Your task to perform on an android device: toggle improve location accuracy Image 0: 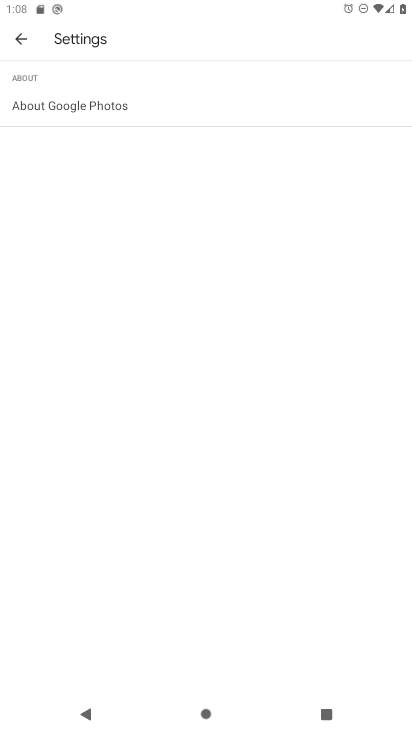
Step 0: press home button
Your task to perform on an android device: toggle improve location accuracy Image 1: 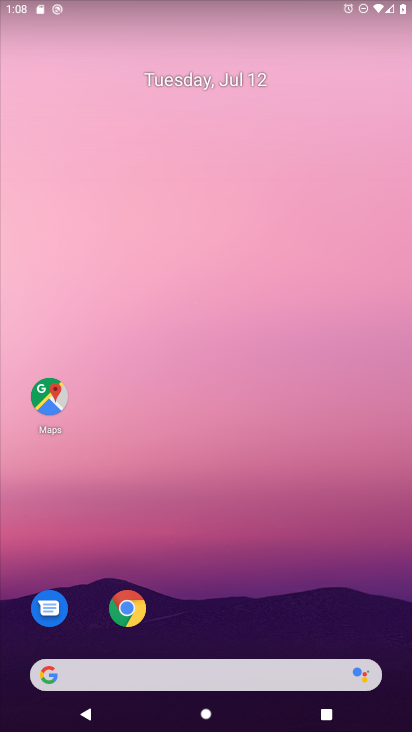
Step 1: drag from (150, 652) to (127, 324)
Your task to perform on an android device: toggle improve location accuracy Image 2: 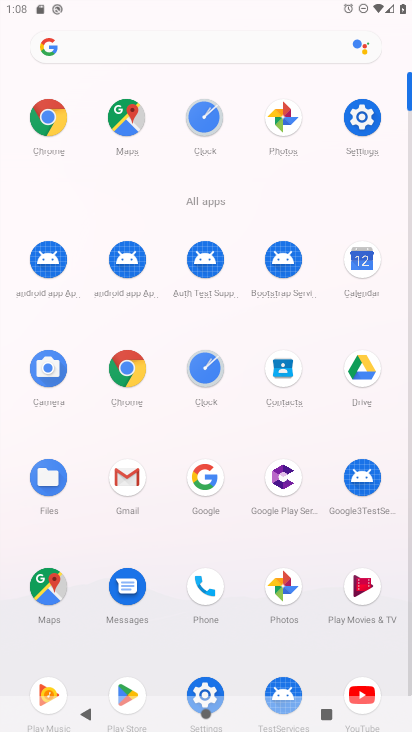
Step 2: click (365, 122)
Your task to perform on an android device: toggle improve location accuracy Image 3: 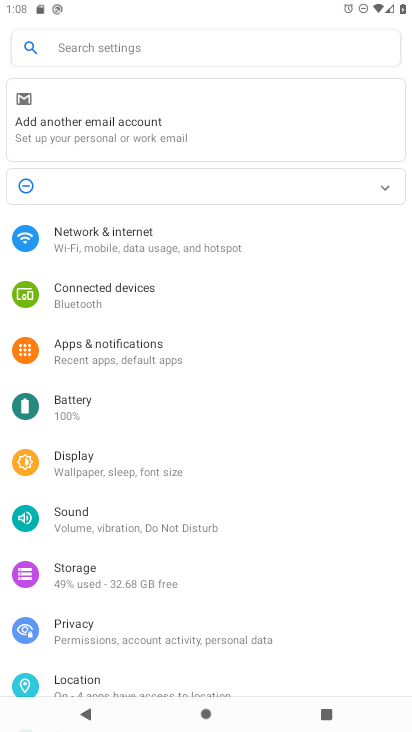
Step 3: click (84, 686)
Your task to perform on an android device: toggle improve location accuracy Image 4: 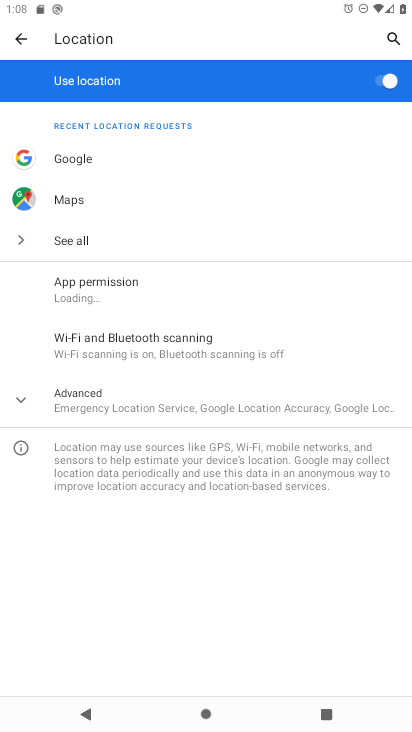
Step 4: click (111, 404)
Your task to perform on an android device: toggle improve location accuracy Image 5: 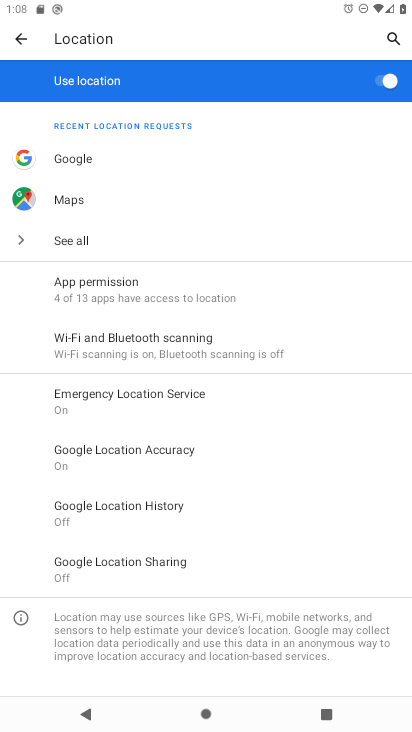
Step 5: click (153, 454)
Your task to perform on an android device: toggle improve location accuracy Image 6: 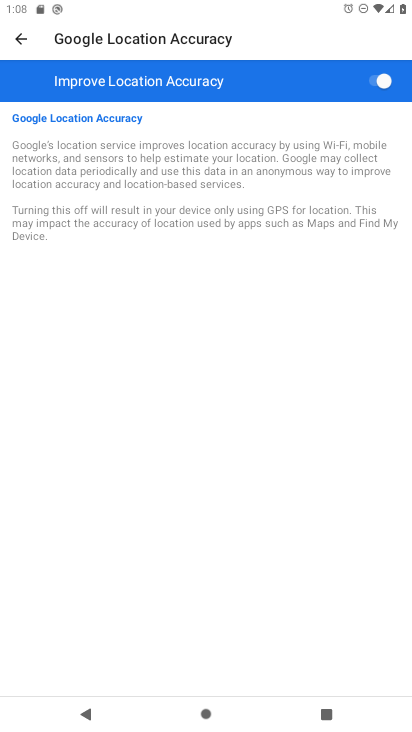
Step 6: click (372, 79)
Your task to perform on an android device: toggle improve location accuracy Image 7: 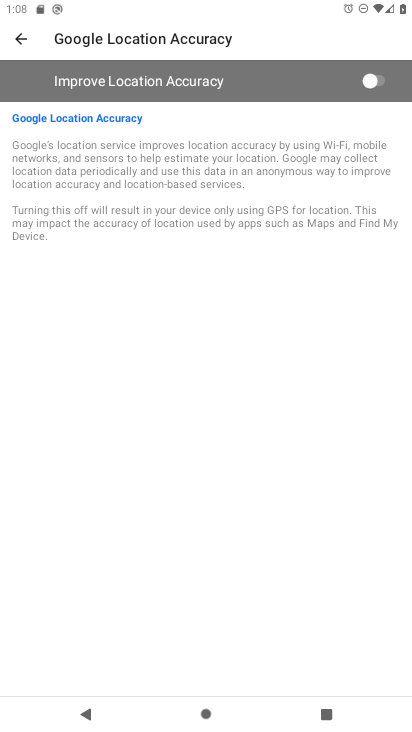
Step 7: task complete